Your task to perform on an android device: find snoozed emails in the gmail app Image 0: 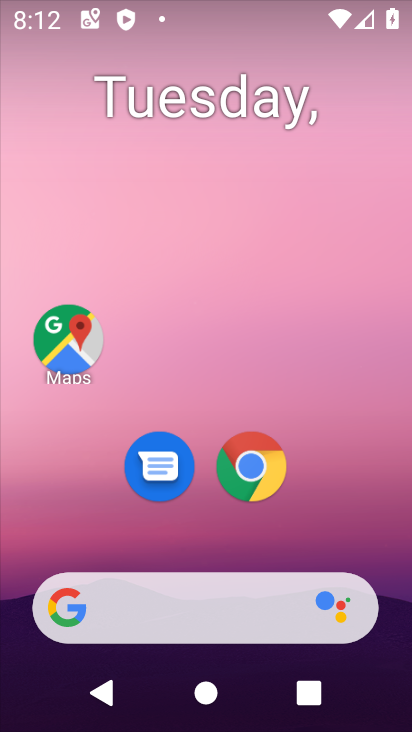
Step 0: drag from (378, 495) to (378, 162)
Your task to perform on an android device: find snoozed emails in the gmail app Image 1: 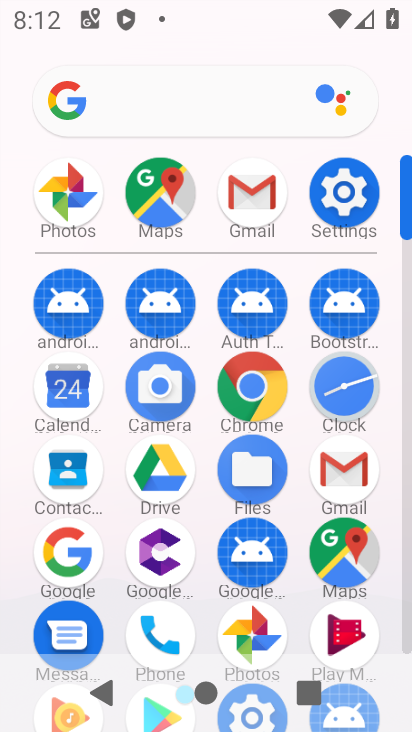
Step 1: click (243, 206)
Your task to perform on an android device: find snoozed emails in the gmail app Image 2: 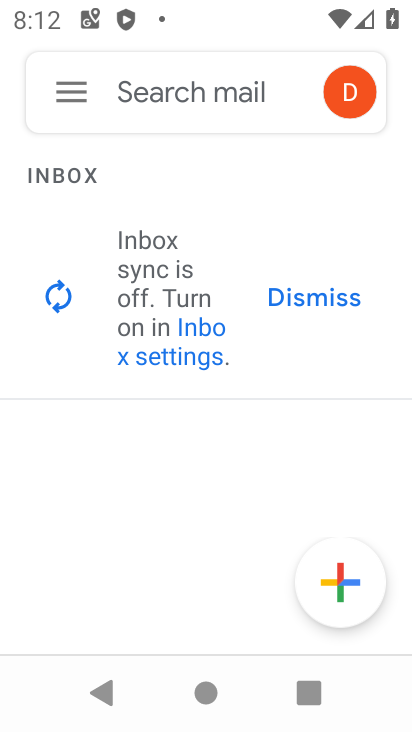
Step 2: click (85, 90)
Your task to perform on an android device: find snoozed emails in the gmail app Image 3: 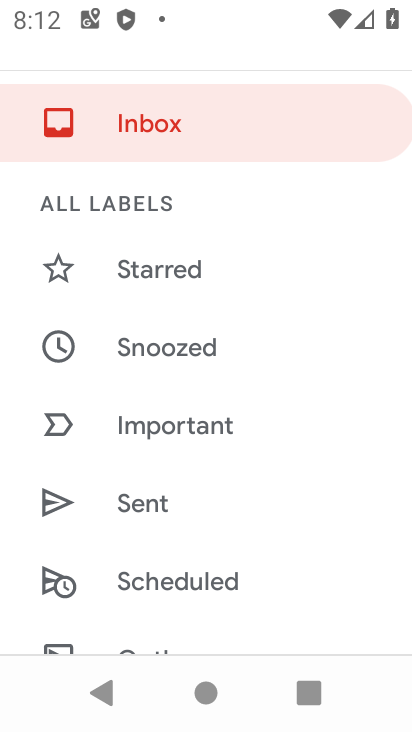
Step 3: click (220, 362)
Your task to perform on an android device: find snoozed emails in the gmail app Image 4: 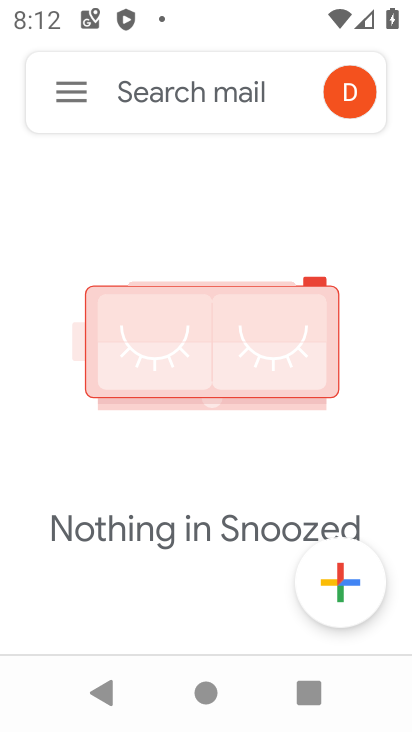
Step 4: task complete